Your task to perform on an android device: install app "Truecaller" Image 0: 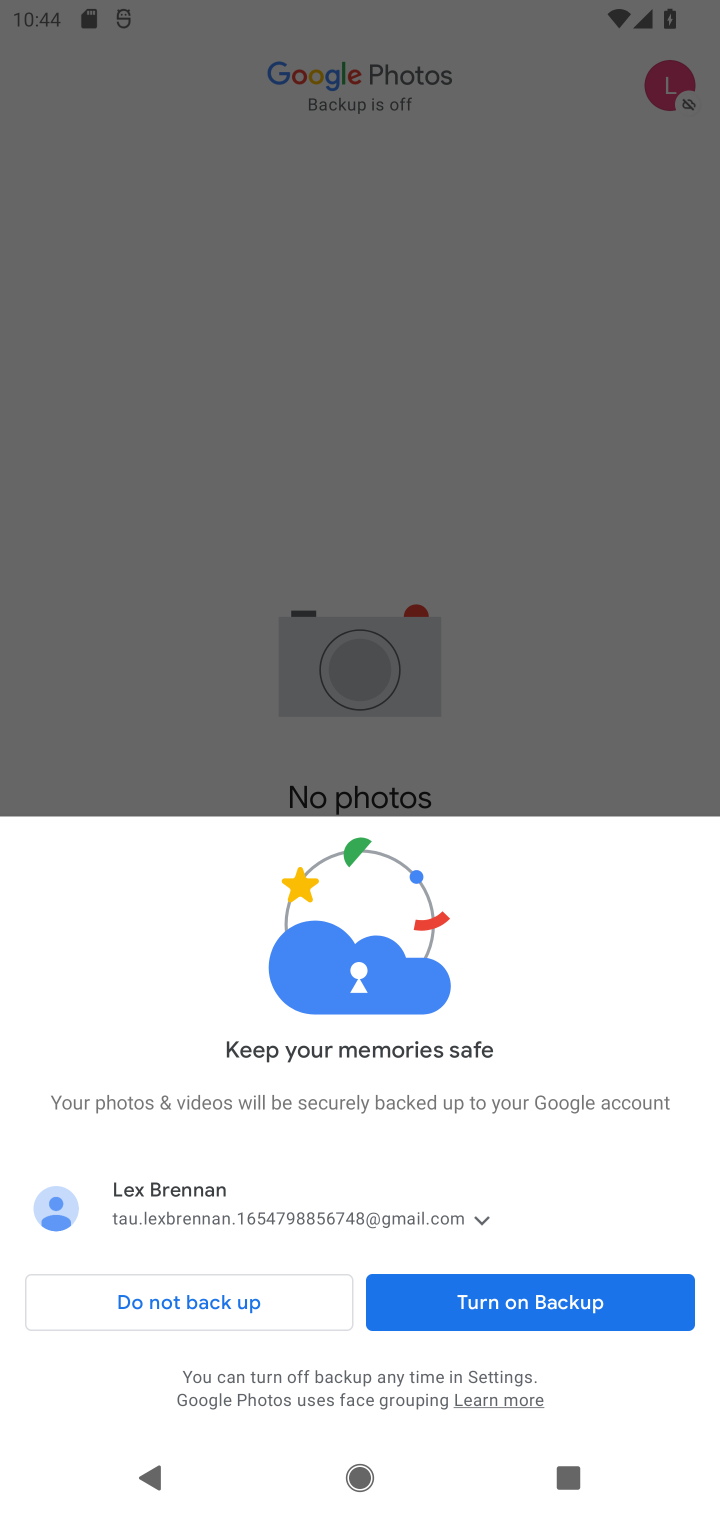
Step 0: press home button
Your task to perform on an android device: install app "Truecaller" Image 1: 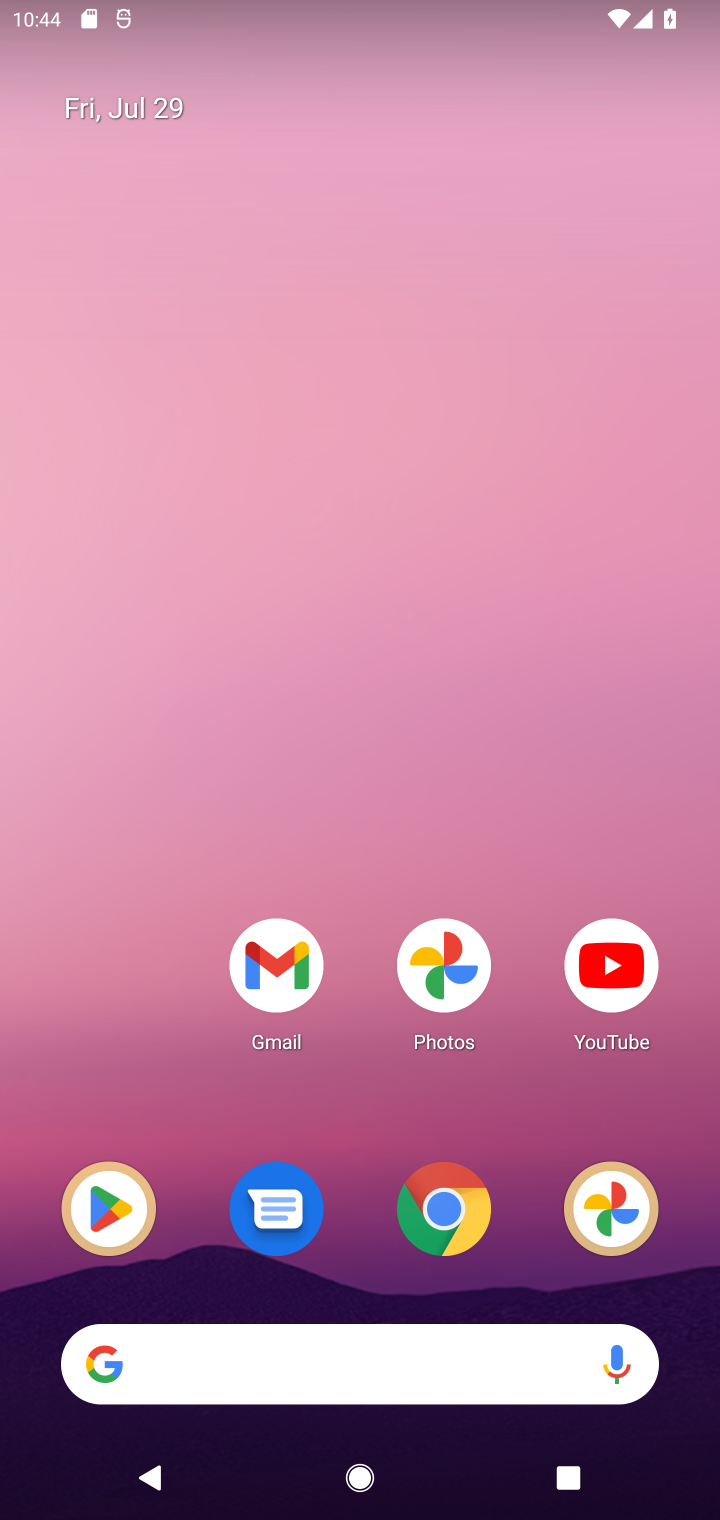
Step 1: drag from (384, 1109) to (585, 61)
Your task to perform on an android device: install app "Truecaller" Image 2: 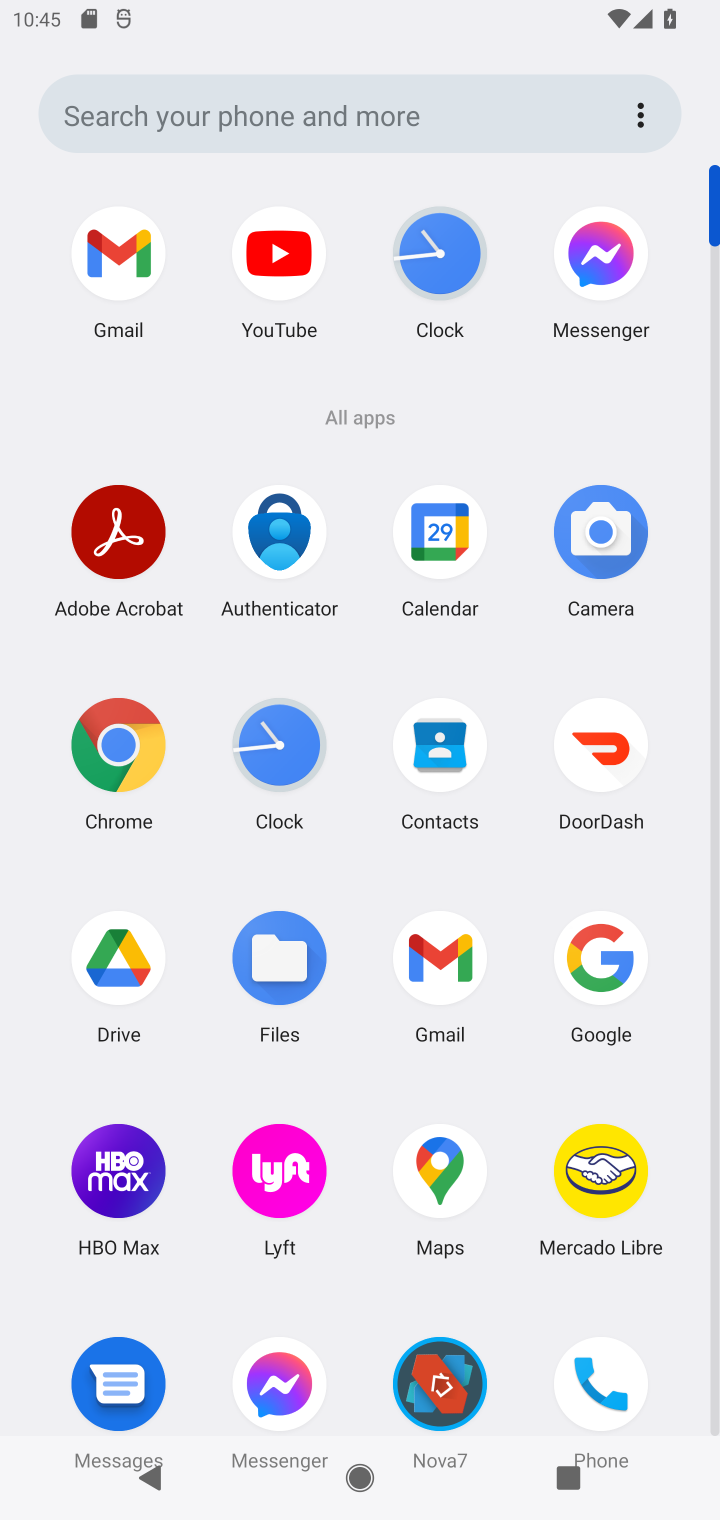
Step 2: drag from (501, 1281) to (517, 498)
Your task to perform on an android device: install app "Truecaller" Image 3: 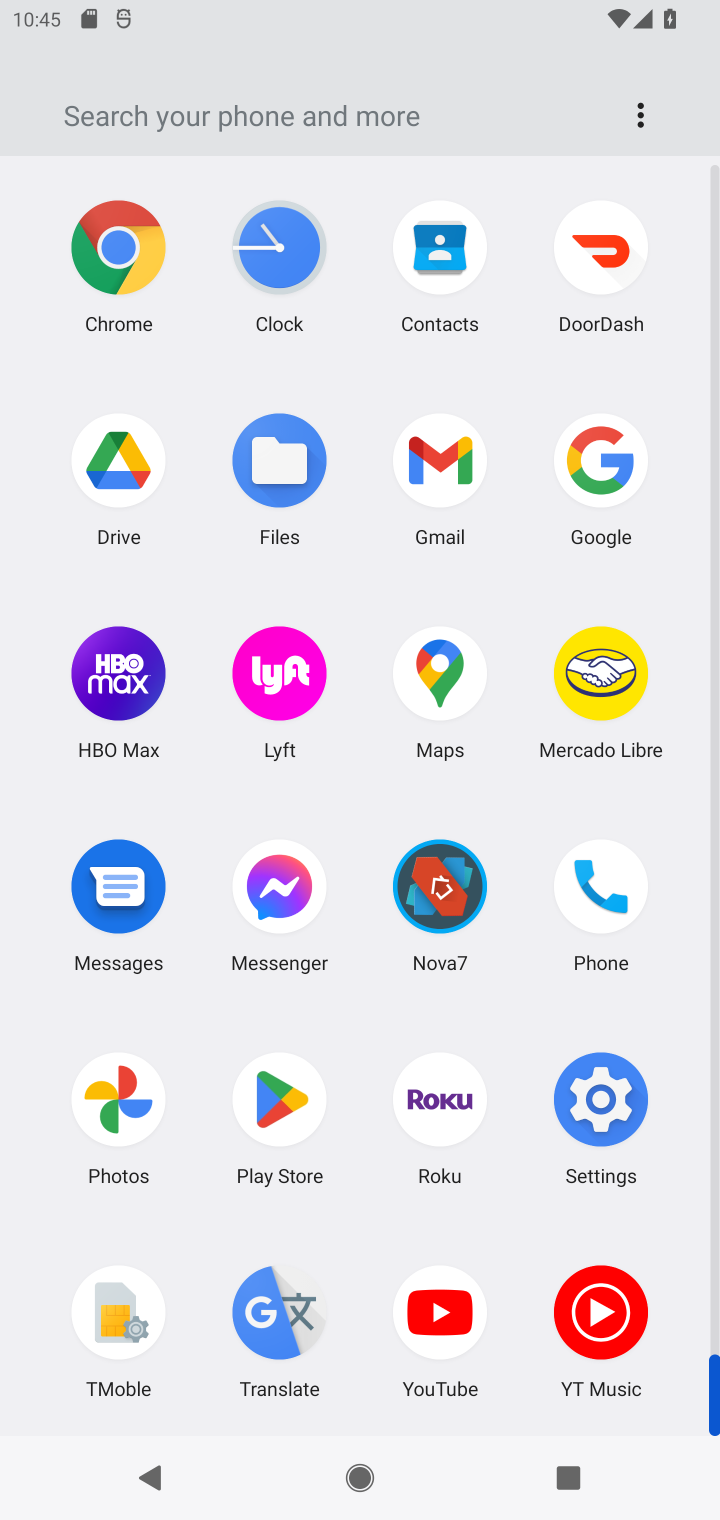
Step 3: click (279, 1090)
Your task to perform on an android device: install app "Truecaller" Image 4: 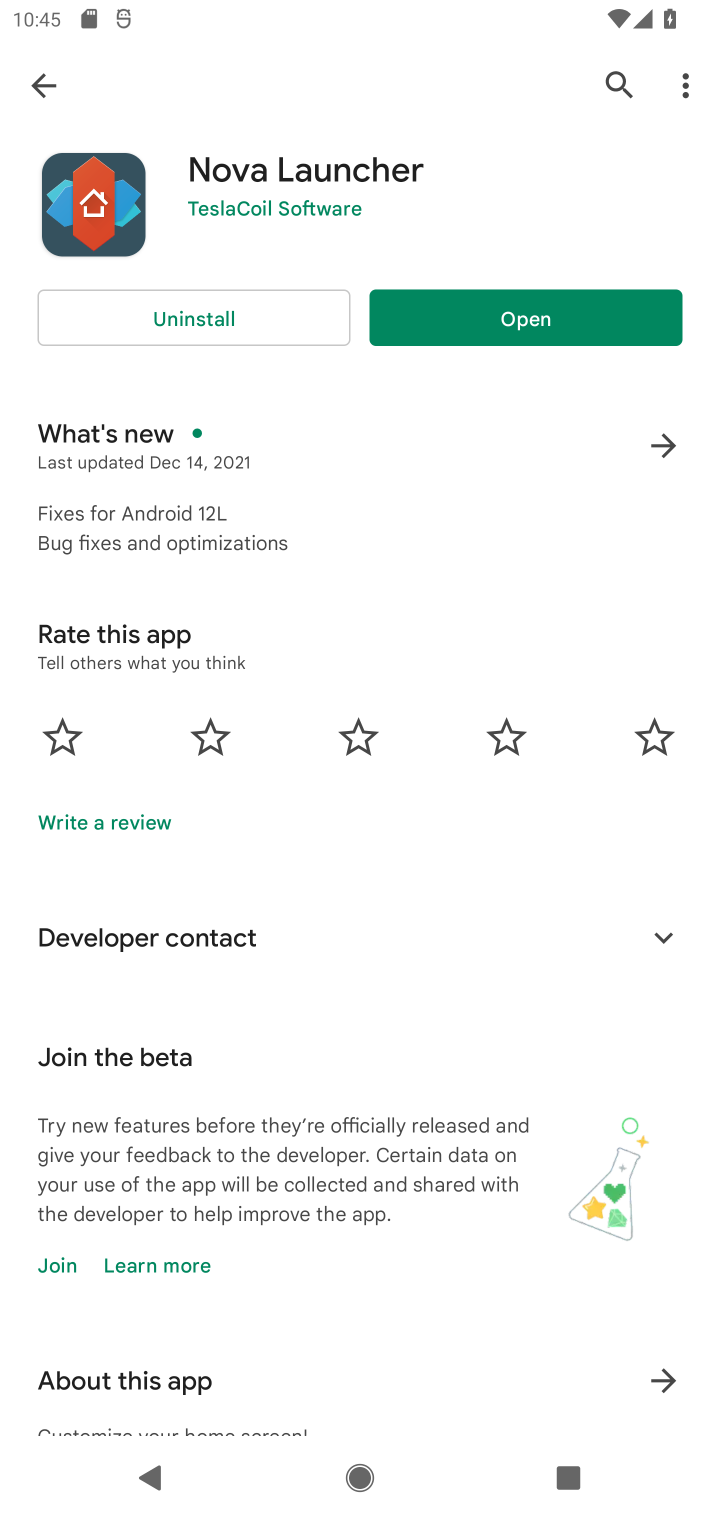
Step 4: click (611, 86)
Your task to perform on an android device: install app "Truecaller" Image 5: 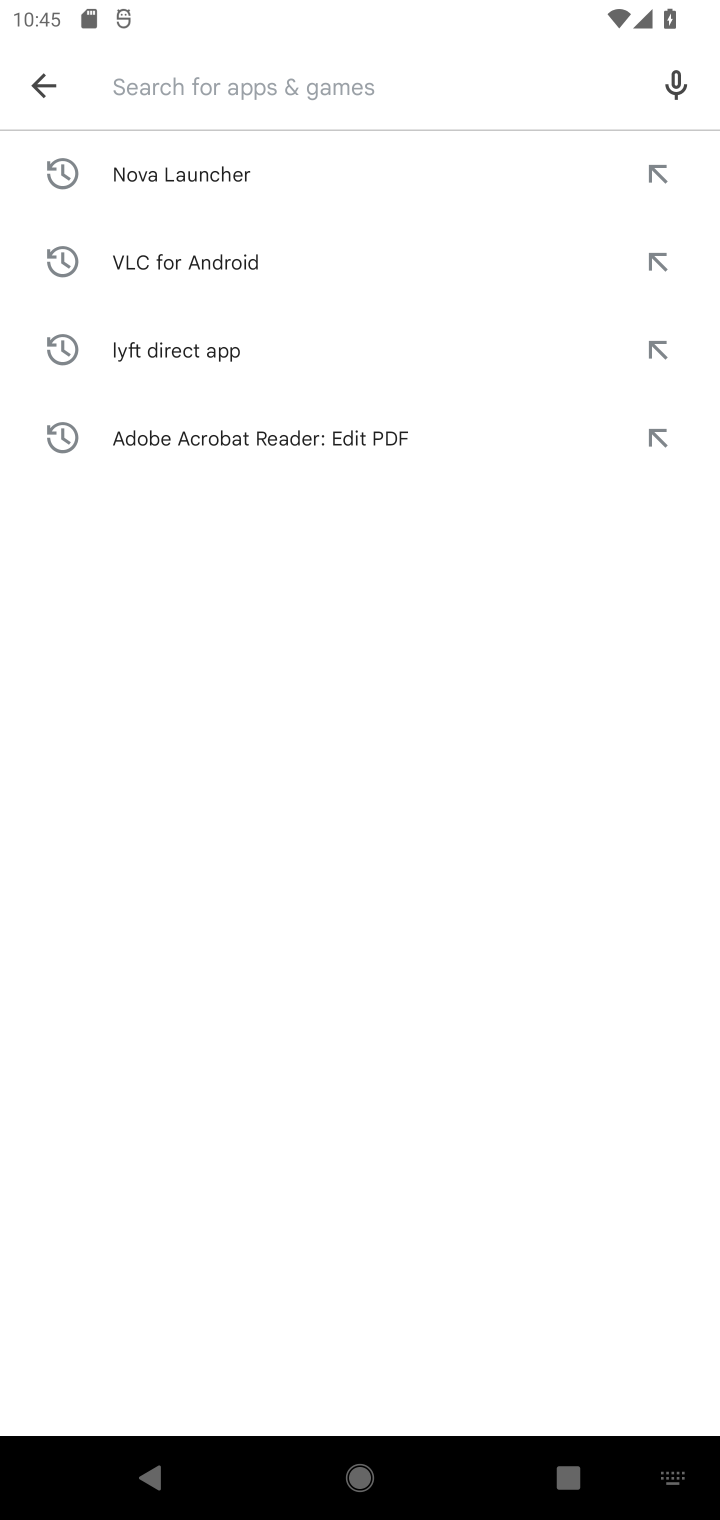
Step 5: type "Truecaller"
Your task to perform on an android device: install app "Truecaller" Image 6: 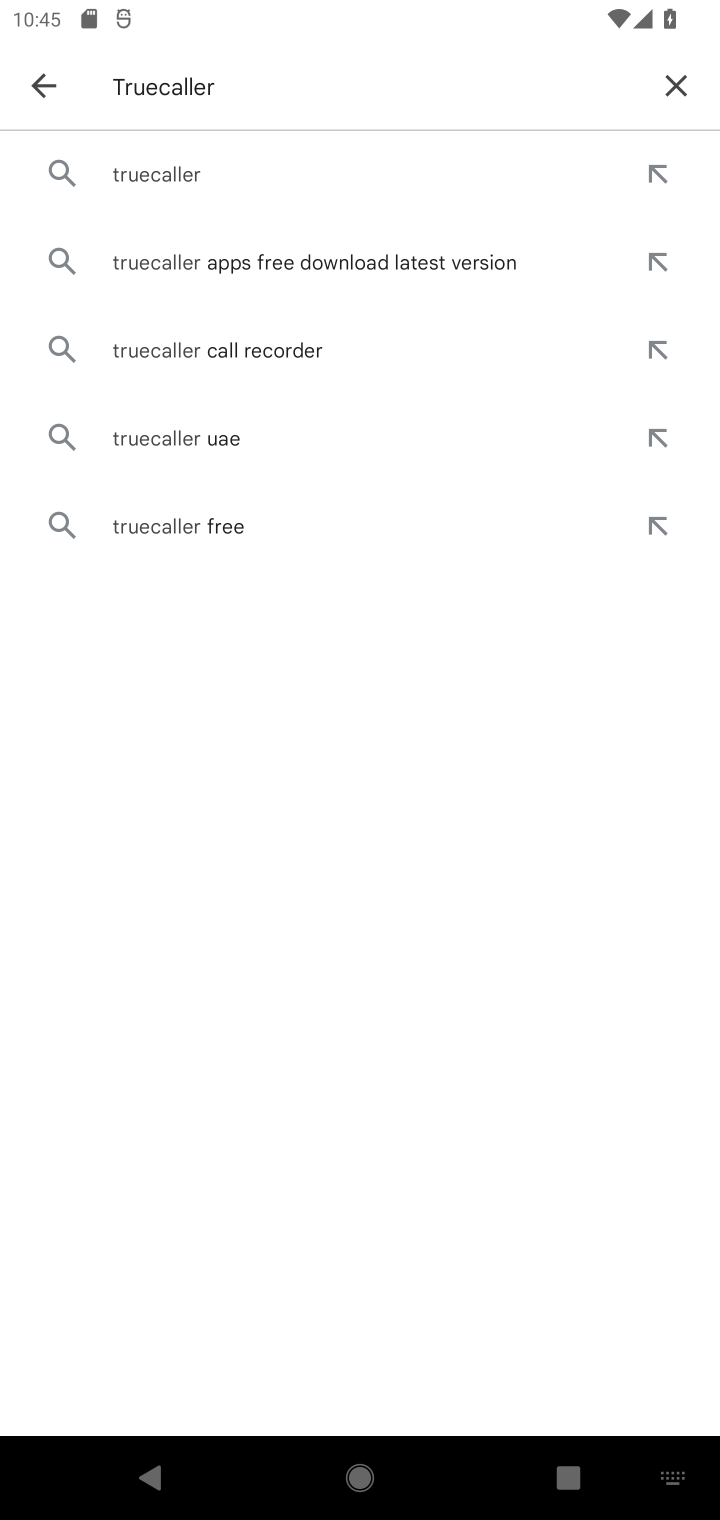
Step 6: press enter
Your task to perform on an android device: install app "Truecaller" Image 7: 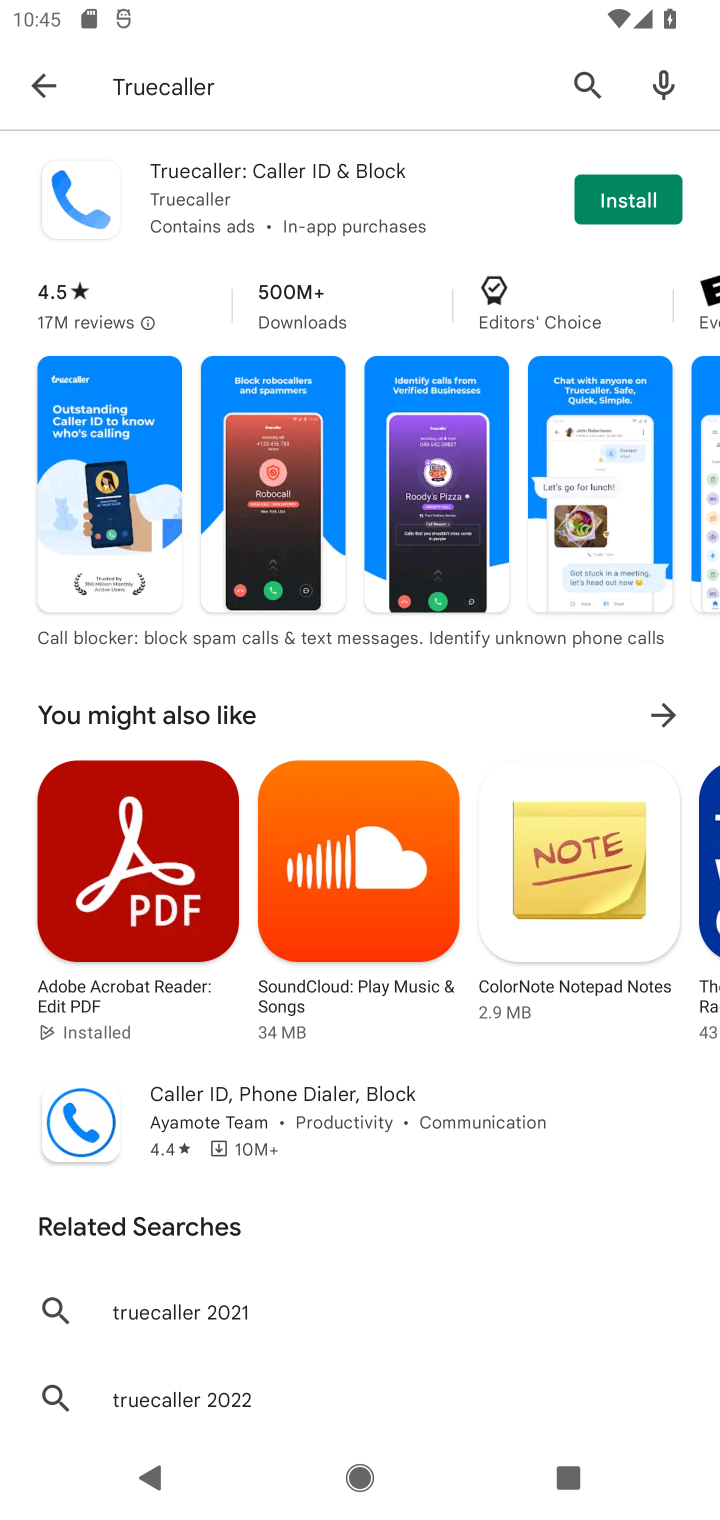
Step 7: click (636, 209)
Your task to perform on an android device: install app "Truecaller" Image 8: 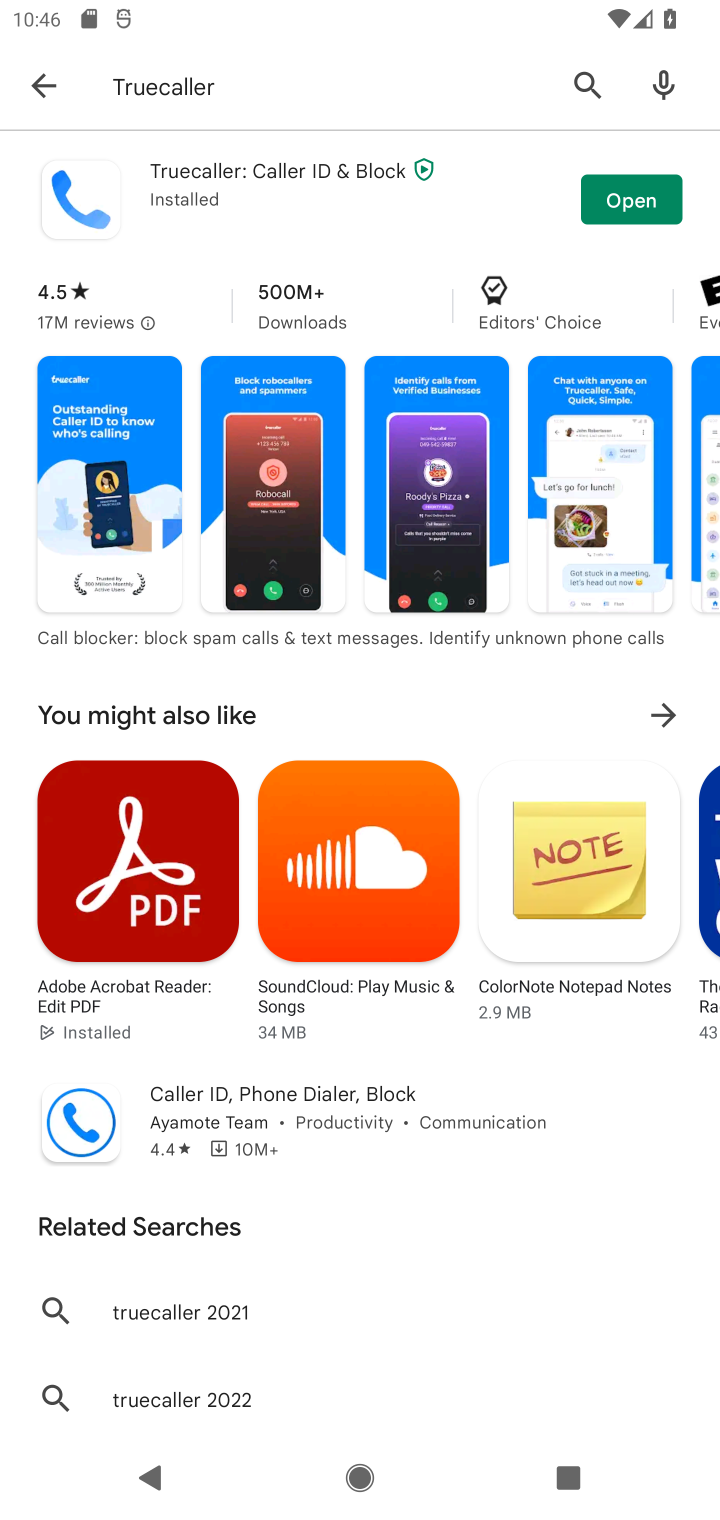
Step 8: task complete